Your task to perform on an android device: change notification settings in the gmail app Image 0: 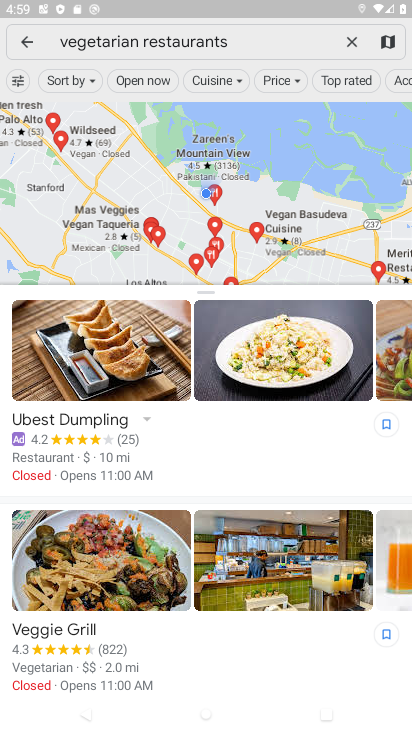
Step 0: press home button
Your task to perform on an android device: change notification settings in the gmail app Image 1: 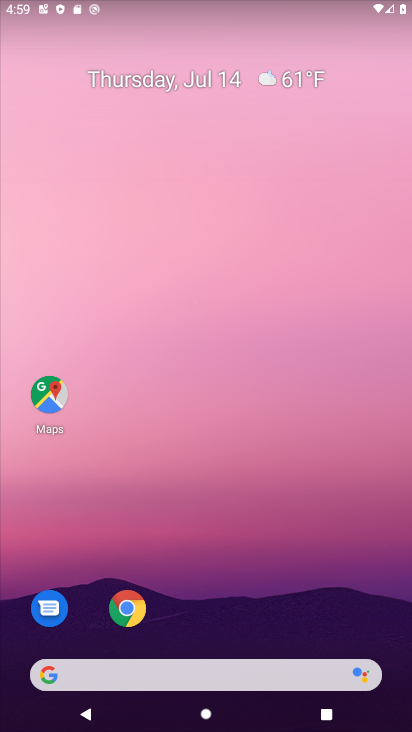
Step 1: drag from (179, 572) to (234, 125)
Your task to perform on an android device: change notification settings in the gmail app Image 2: 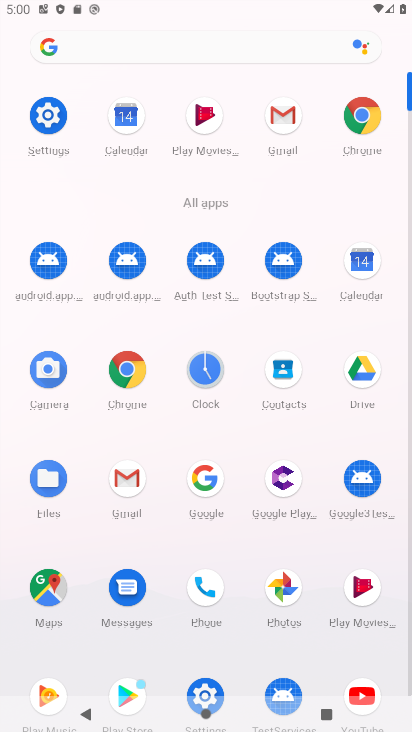
Step 2: click (283, 125)
Your task to perform on an android device: change notification settings in the gmail app Image 3: 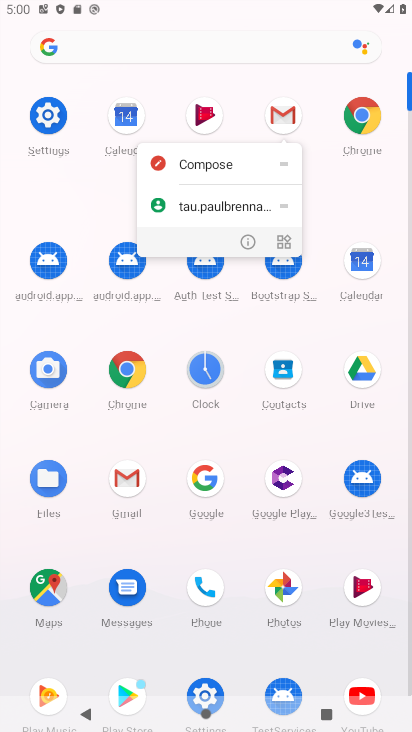
Step 3: click (283, 116)
Your task to perform on an android device: change notification settings in the gmail app Image 4: 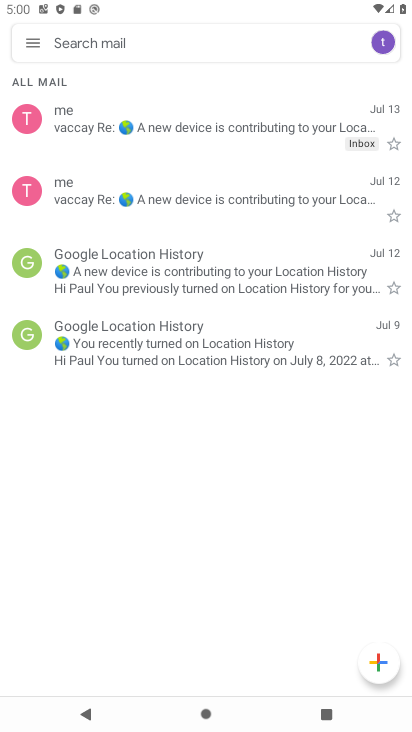
Step 4: click (31, 36)
Your task to perform on an android device: change notification settings in the gmail app Image 5: 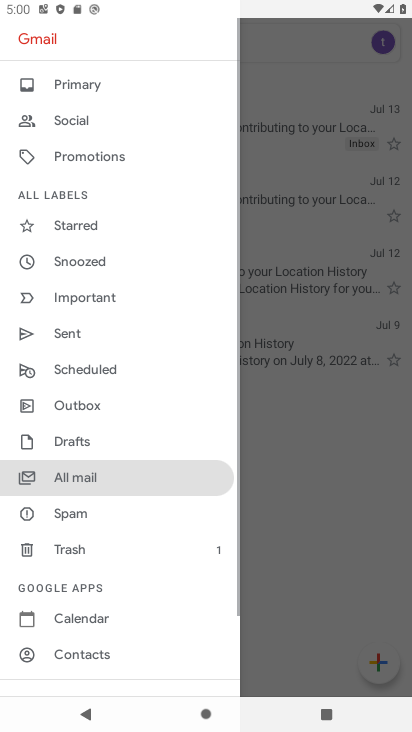
Step 5: drag from (102, 651) to (131, 167)
Your task to perform on an android device: change notification settings in the gmail app Image 6: 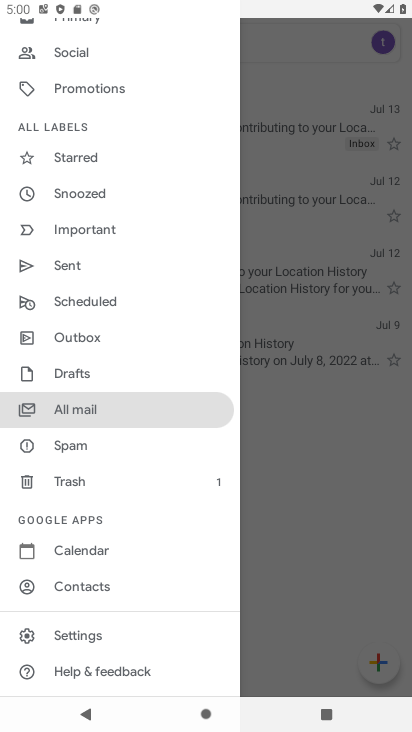
Step 6: click (94, 638)
Your task to perform on an android device: change notification settings in the gmail app Image 7: 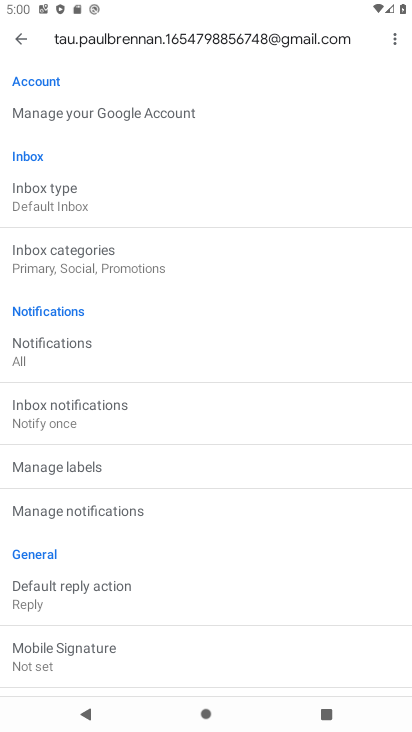
Step 7: click (100, 524)
Your task to perform on an android device: change notification settings in the gmail app Image 8: 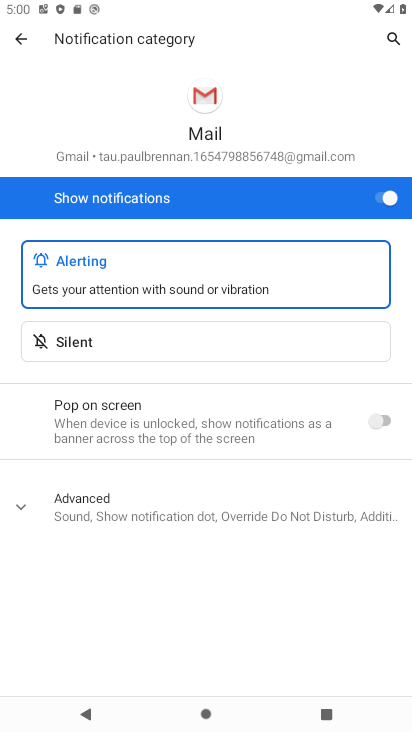
Step 8: click (354, 191)
Your task to perform on an android device: change notification settings in the gmail app Image 9: 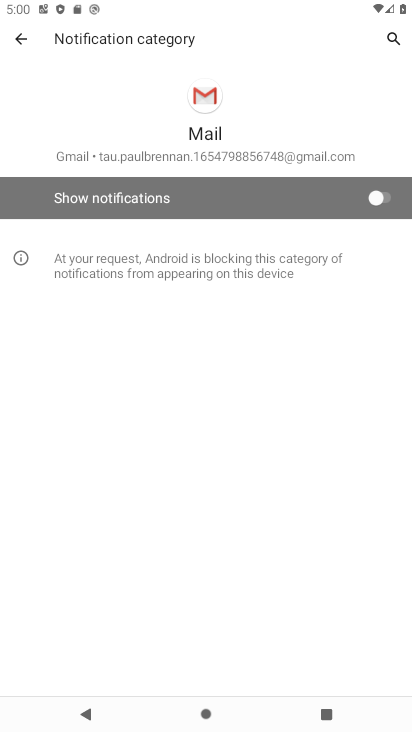
Step 9: task complete